Your task to perform on an android device: Go to Yahoo.com Image 0: 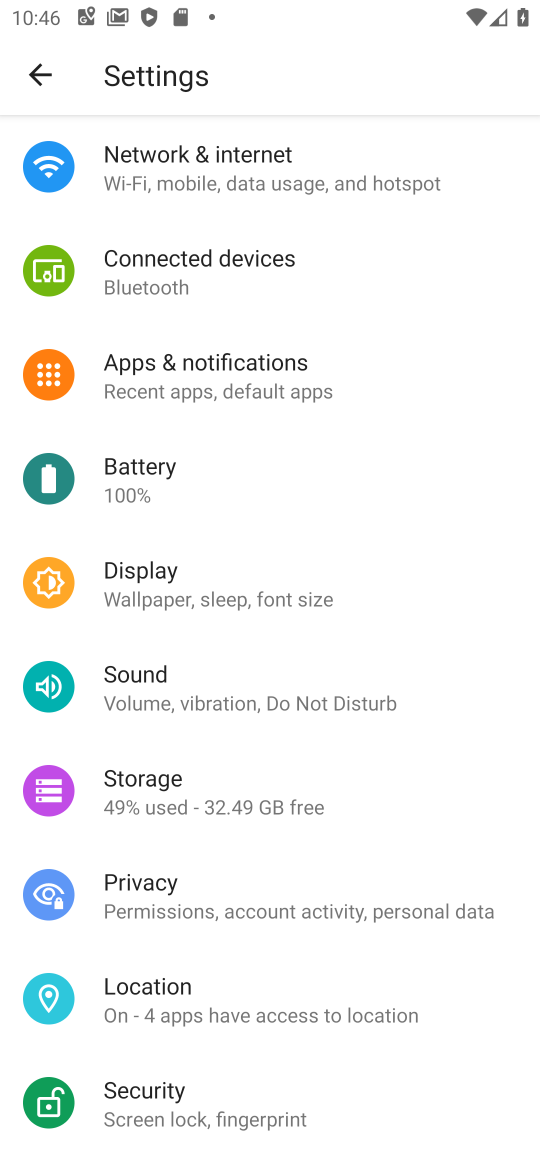
Step 0: press home button
Your task to perform on an android device: Go to Yahoo.com Image 1: 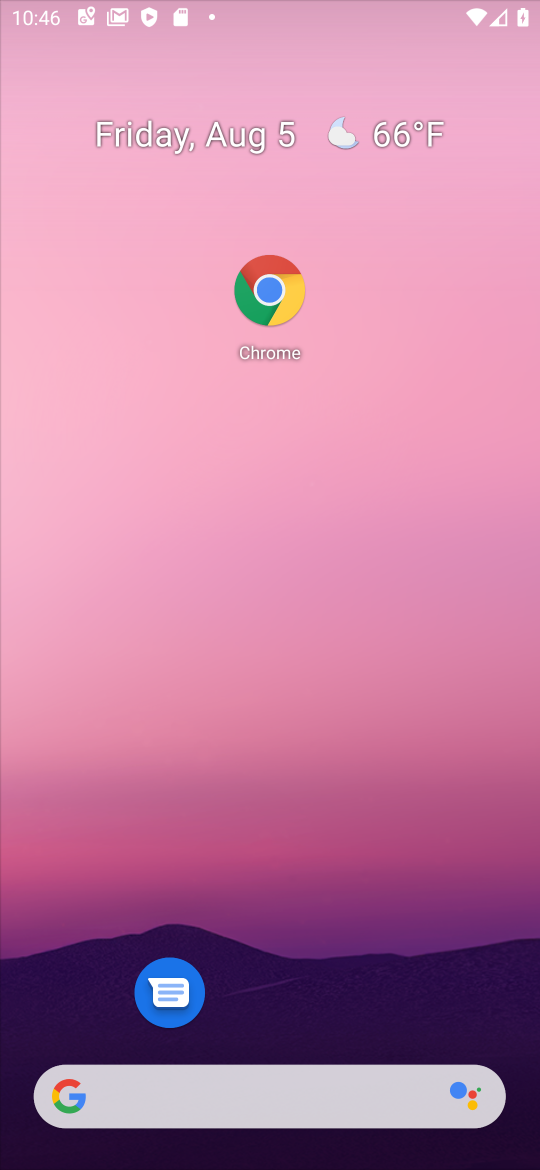
Step 1: drag from (287, 1036) to (434, 0)
Your task to perform on an android device: Go to Yahoo.com Image 2: 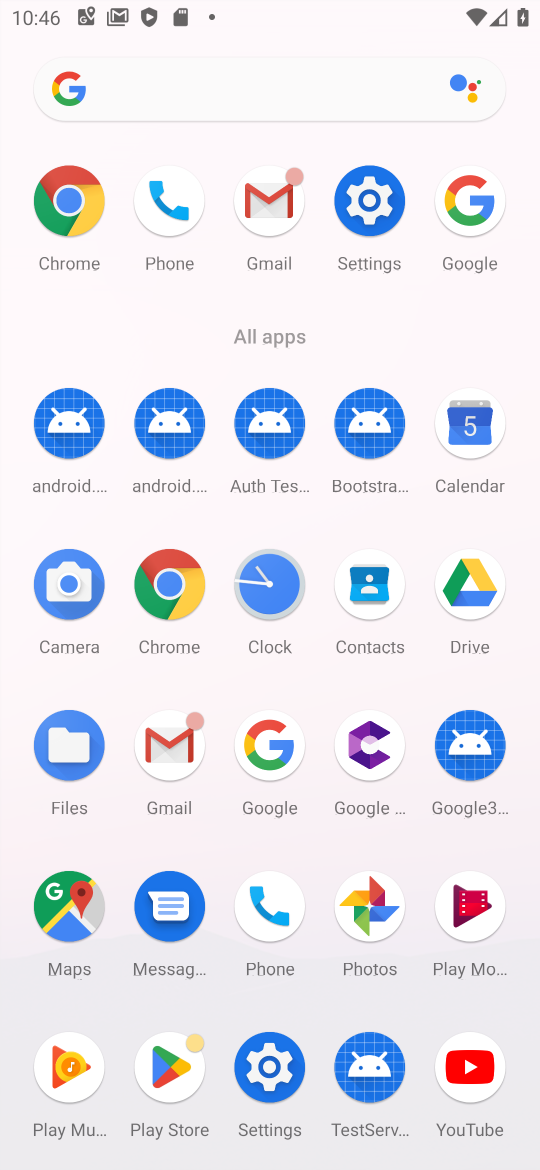
Step 2: click (62, 203)
Your task to perform on an android device: Go to Yahoo.com Image 3: 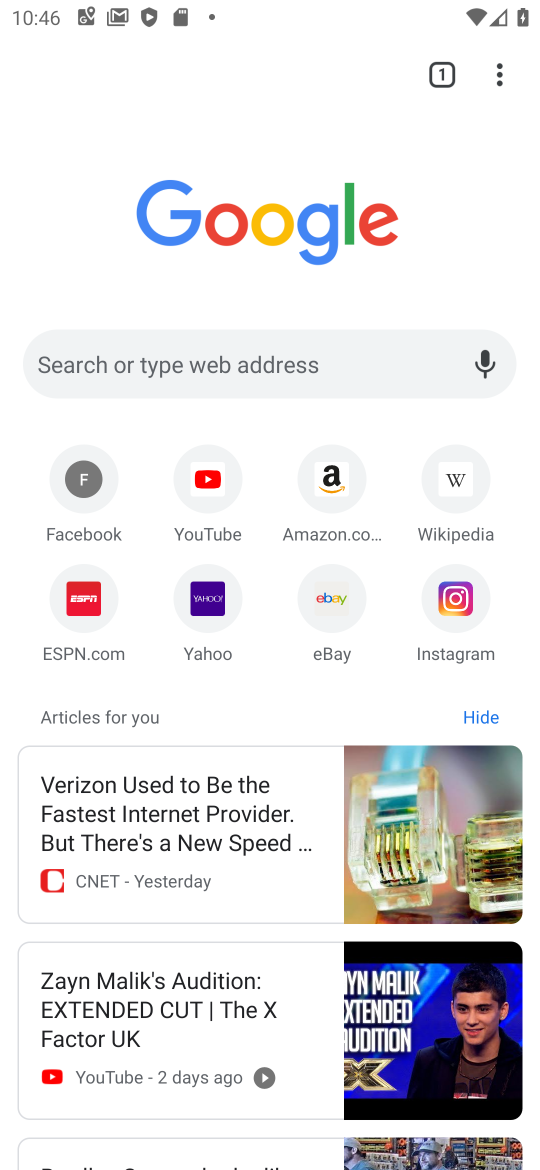
Step 3: click (200, 602)
Your task to perform on an android device: Go to Yahoo.com Image 4: 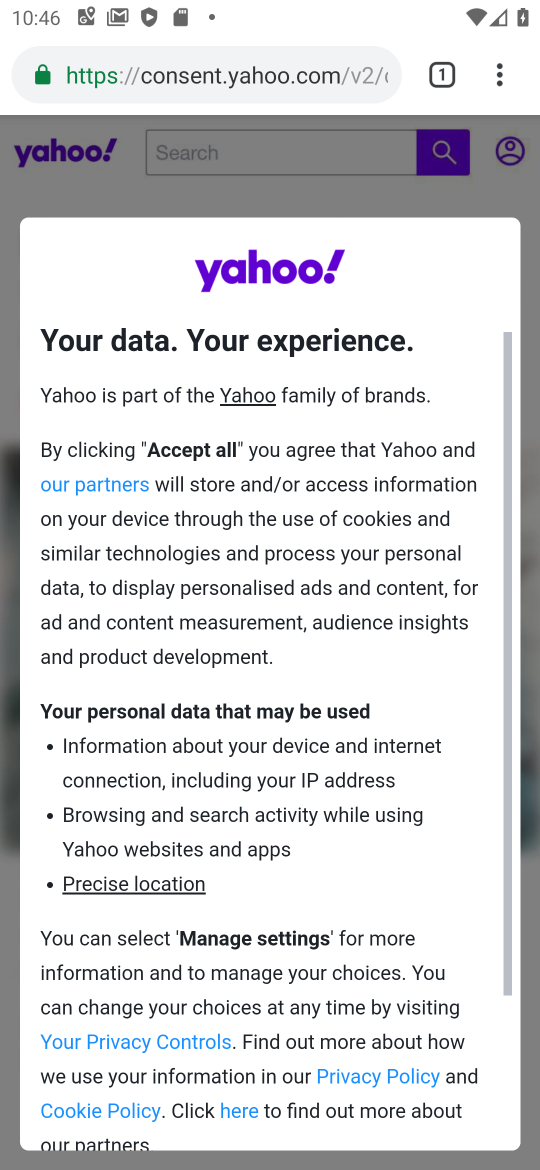
Step 4: task complete